Your task to perform on an android device: Clear all items from cart on amazon.com. Search for usb-c on amazon.com, select the first entry, add it to the cart, then select checkout. Image 0: 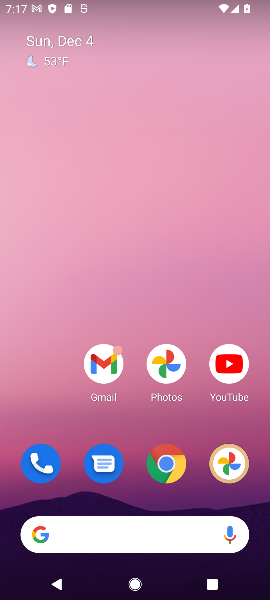
Step 0: click (135, 526)
Your task to perform on an android device: Clear all items from cart on amazon.com. Search for usb-c on amazon.com, select the first entry, add it to the cart, then select checkout. Image 1: 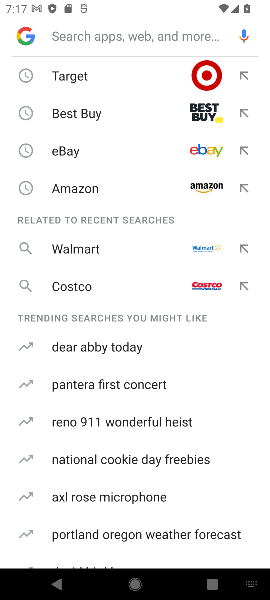
Step 1: click (201, 191)
Your task to perform on an android device: Clear all items from cart on amazon.com. Search for usb-c on amazon.com, select the first entry, add it to the cart, then select checkout. Image 2: 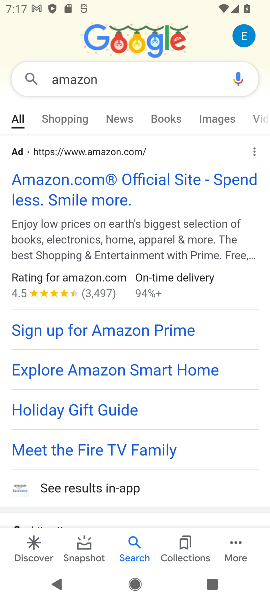
Step 2: click (153, 194)
Your task to perform on an android device: Clear all items from cart on amazon.com. Search for usb-c on amazon.com, select the first entry, add it to the cart, then select checkout. Image 3: 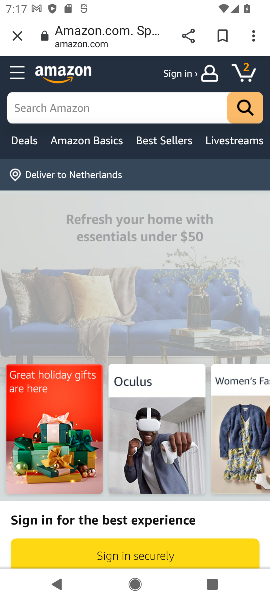
Step 3: click (193, 112)
Your task to perform on an android device: Clear all items from cart on amazon.com. Search for usb-c on amazon.com, select the first entry, add it to the cart, then select checkout. Image 4: 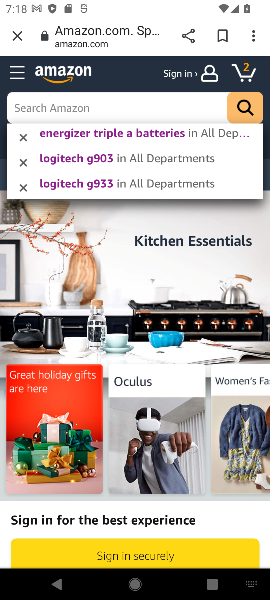
Step 4: type "usb-c "
Your task to perform on an android device: Clear all items from cart on amazon.com. Search for usb-c on amazon.com, select the first entry, add it to the cart, then select checkout. Image 5: 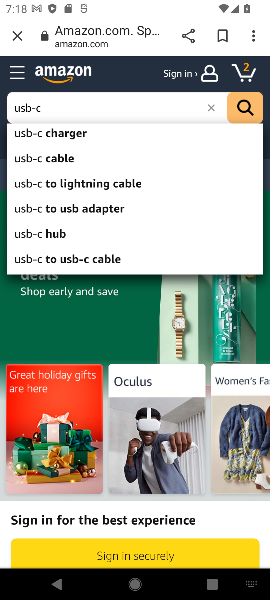
Step 5: click (250, 120)
Your task to perform on an android device: Clear all items from cart on amazon.com. Search for usb-c on amazon.com, select the first entry, add it to the cart, then select checkout. Image 6: 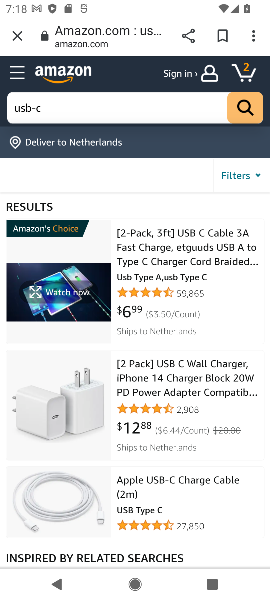
Step 6: click (147, 265)
Your task to perform on an android device: Clear all items from cart on amazon.com. Search for usb-c on amazon.com, select the first entry, add it to the cart, then select checkout. Image 7: 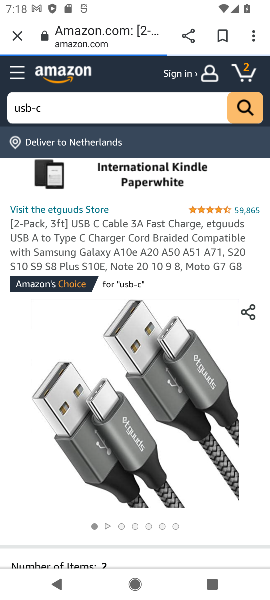
Step 7: task complete